Your task to perform on an android device: What's the weather today? Image 0: 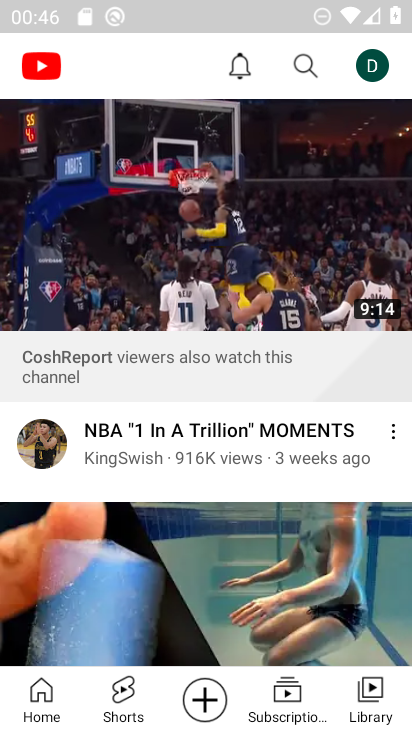
Step 0: press home button
Your task to perform on an android device: What's the weather today? Image 1: 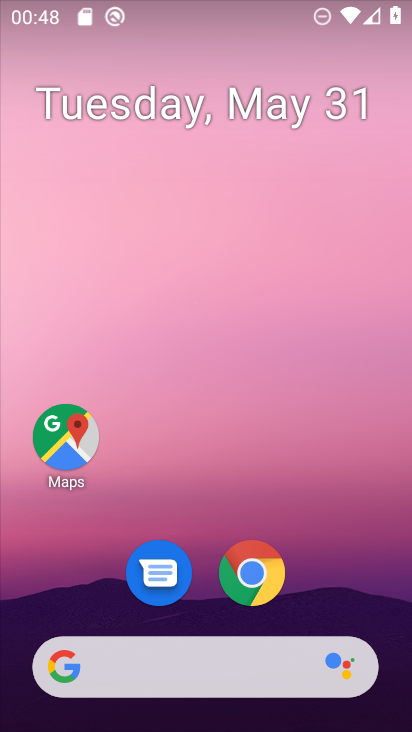
Step 1: click (175, 667)
Your task to perform on an android device: What's the weather today? Image 2: 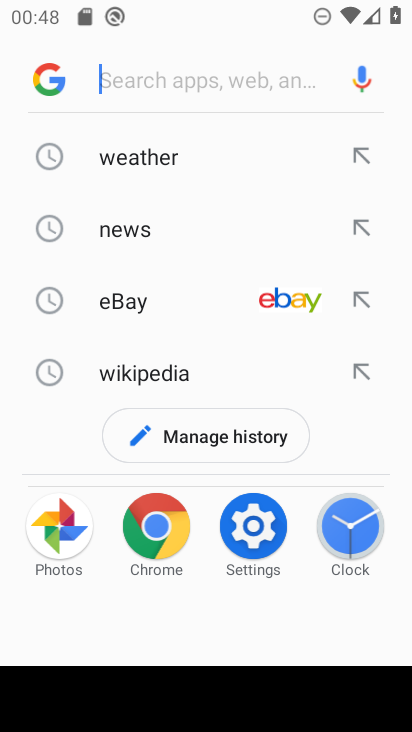
Step 2: type "What's the weather today?"
Your task to perform on an android device: What's the weather today? Image 3: 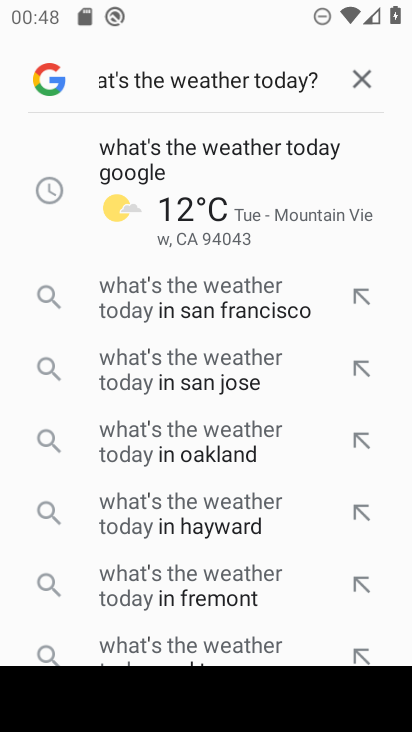
Step 3: click (252, 146)
Your task to perform on an android device: What's the weather today? Image 4: 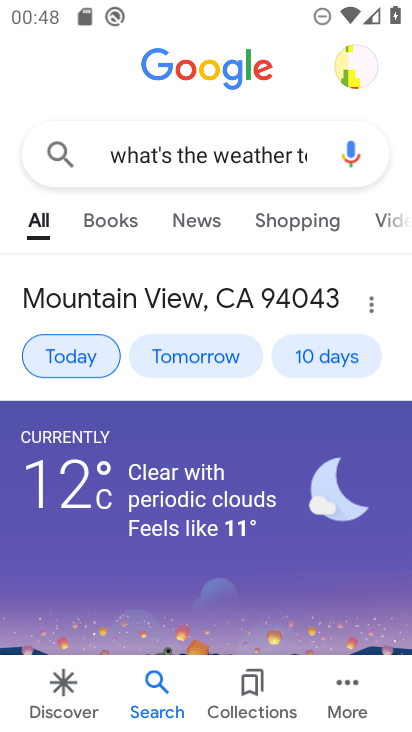
Step 4: task complete